Your task to perform on an android device: Is it going to rain this weekend? Image 0: 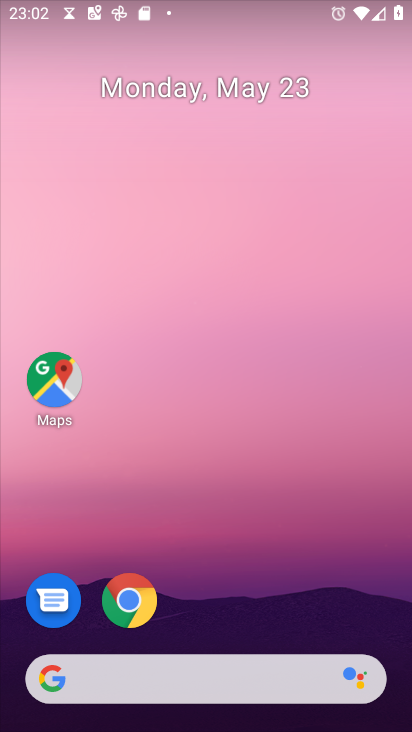
Step 0: drag from (231, 726) to (223, 148)
Your task to perform on an android device: Is it going to rain this weekend? Image 1: 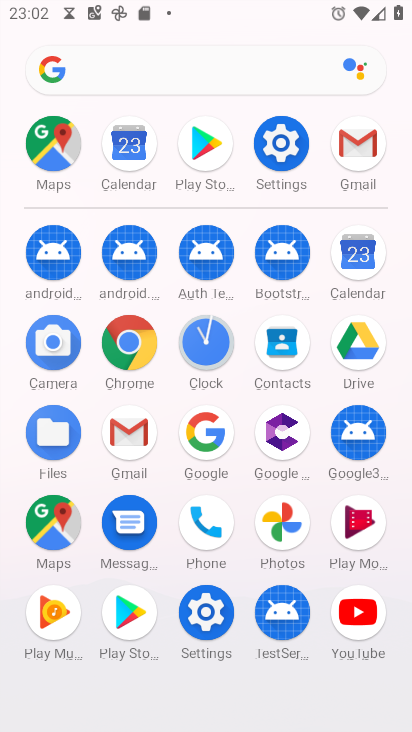
Step 1: click (213, 439)
Your task to perform on an android device: Is it going to rain this weekend? Image 2: 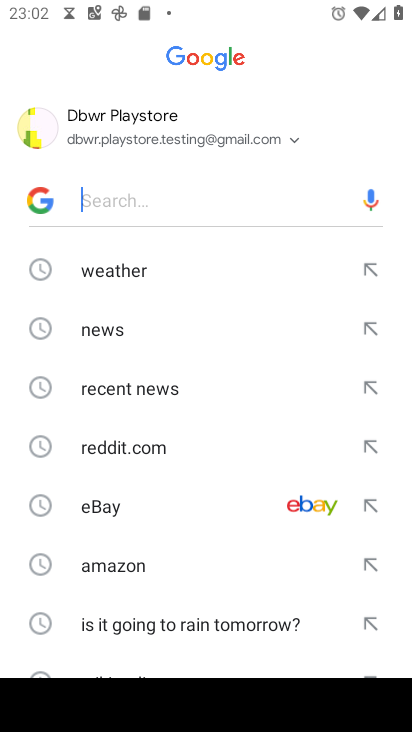
Step 2: click (125, 267)
Your task to perform on an android device: Is it going to rain this weekend? Image 3: 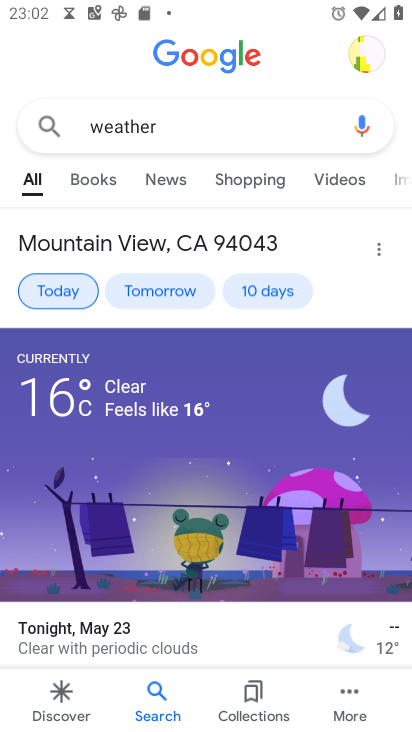
Step 3: click (280, 293)
Your task to perform on an android device: Is it going to rain this weekend? Image 4: 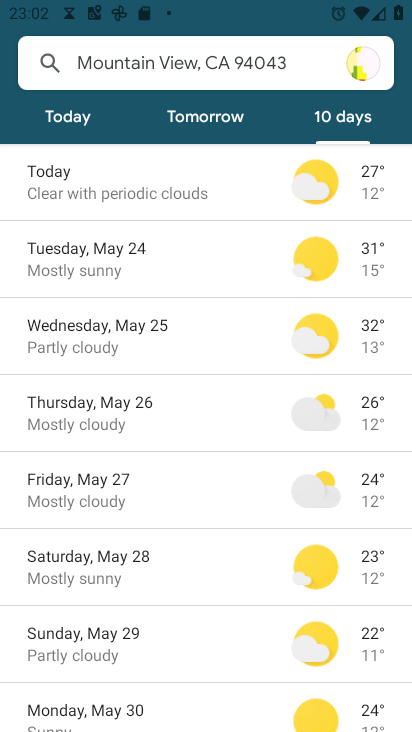
Step 4: click (101, 567)
Your task to perform on an android device: Is it going to rain this weekend? Image 5: 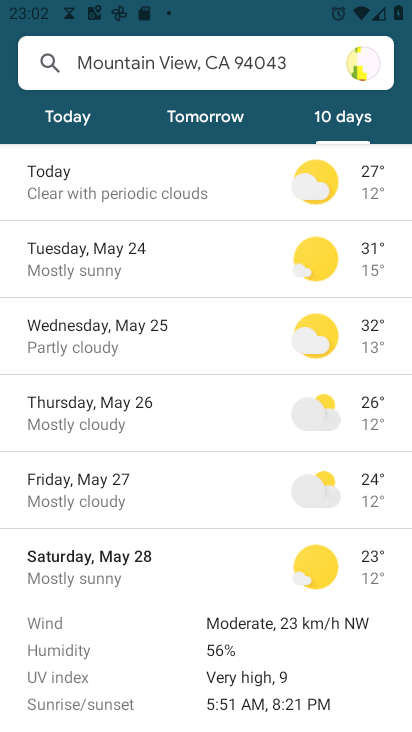
Step 5: task complete